Your task to perform on an android device: Set an alarm for 1pm Image 0: 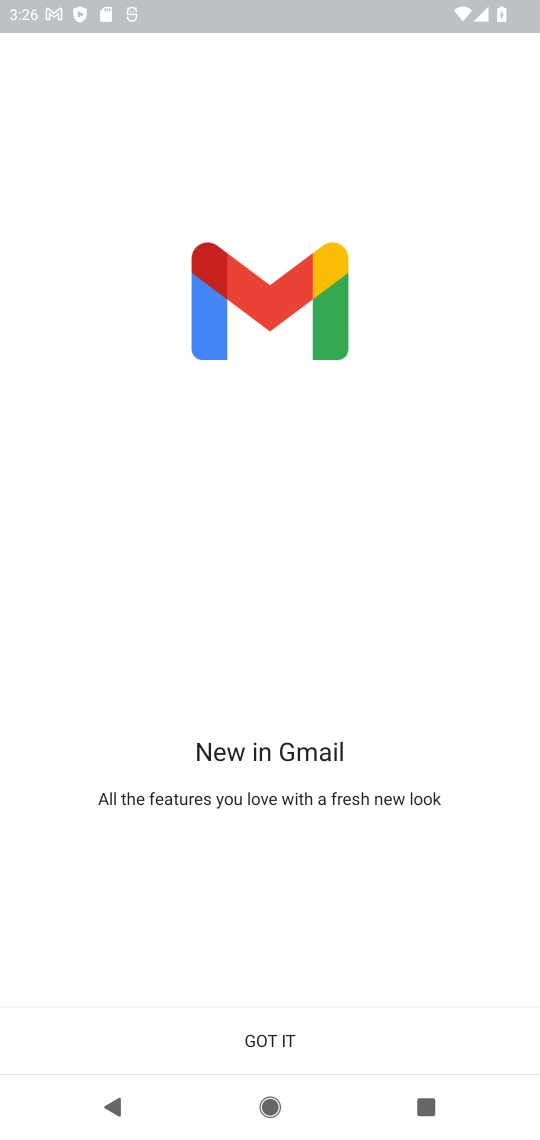
Step 0: press home button
Your task to perform on an android device: Set an alarm for 1pm Image 1: 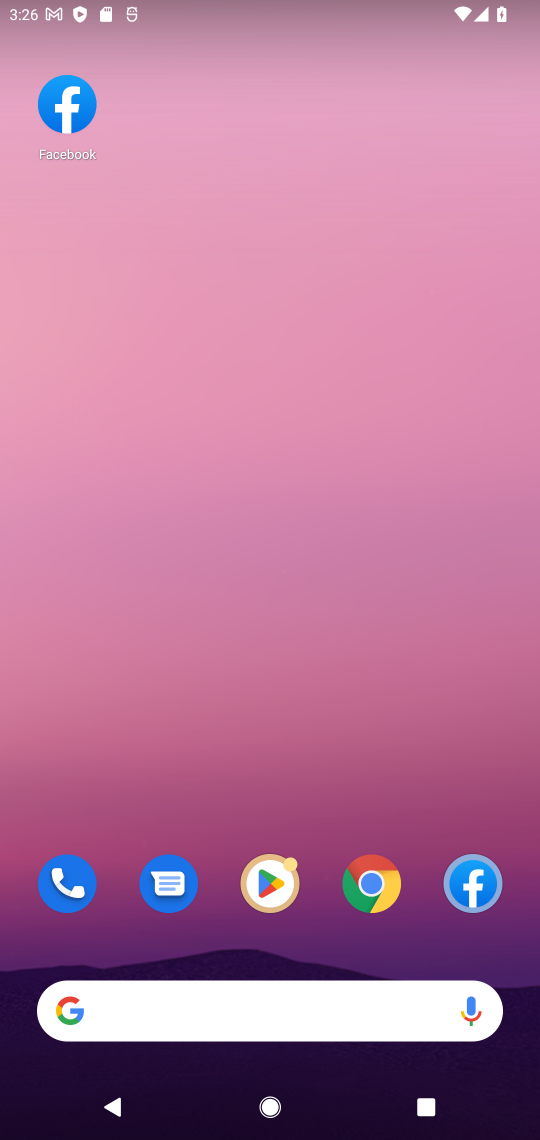
Step 1: drag from (150, 1002) to (93, 193)
Your task to perform on an android device: Set an alarm for 1pm Image 2: 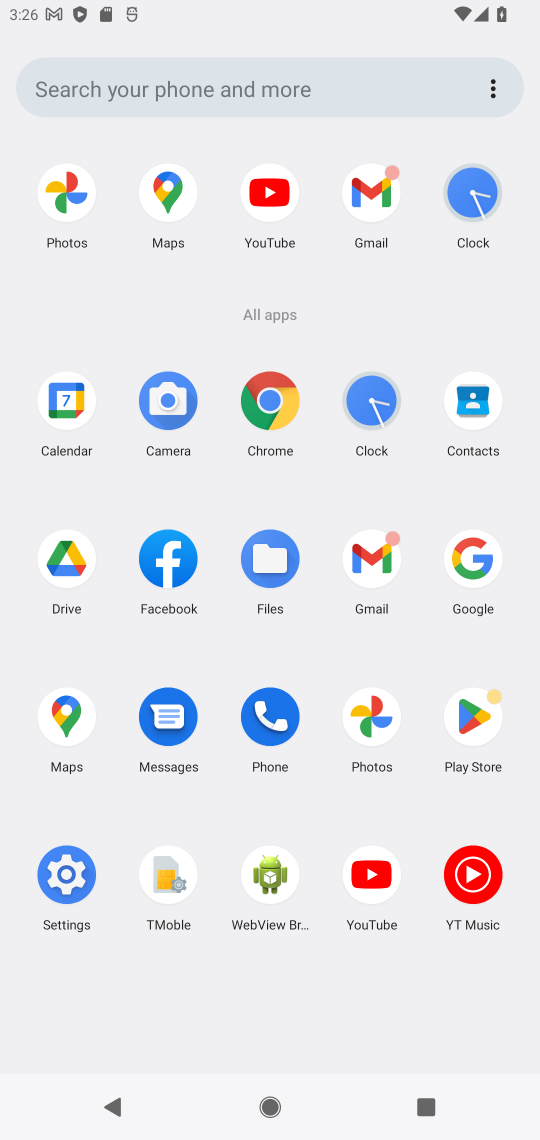
Step 2: click (373, 433)
Your task to perform on an android device: Set an alarm for 1pm Image 3: 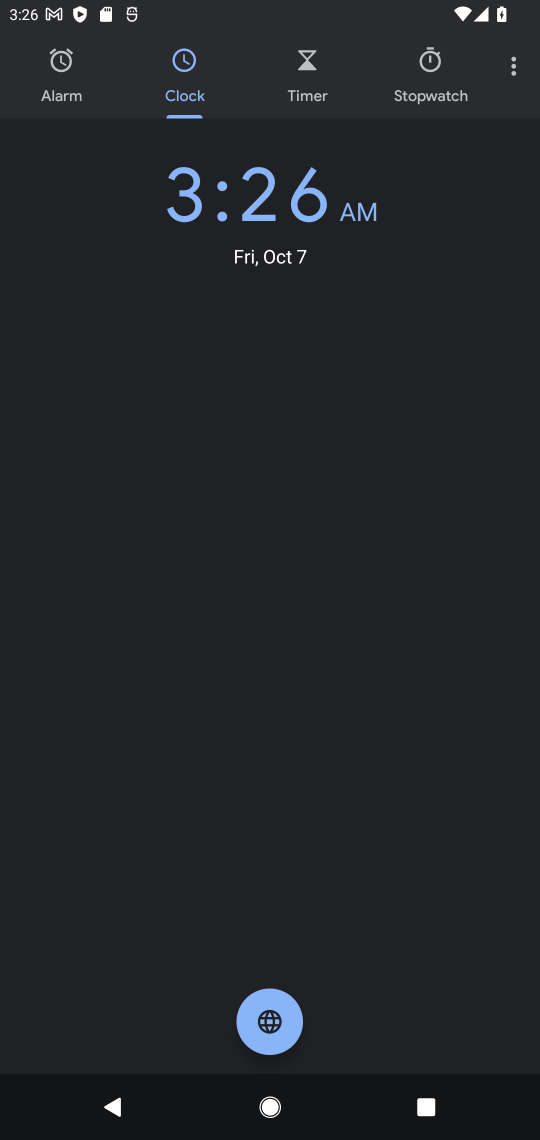
Step 3: click (39, 80)
Your task to perform on an android device: Set an alarm for 1pm Image 4: 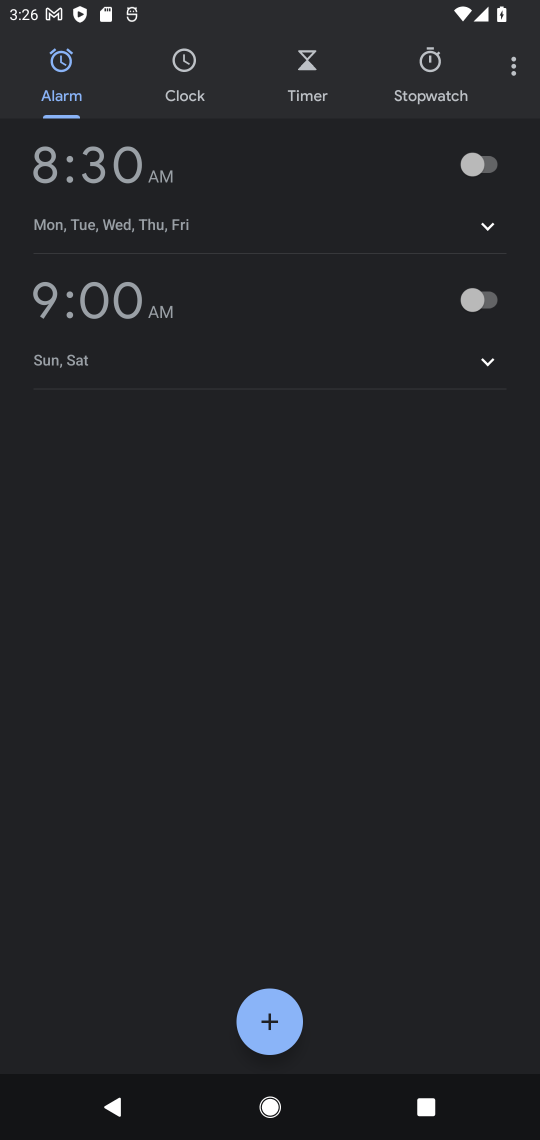
Step 4: click (253, 1013)
Your task to perform on an android device: Set an alarm for 1pm Image 5: 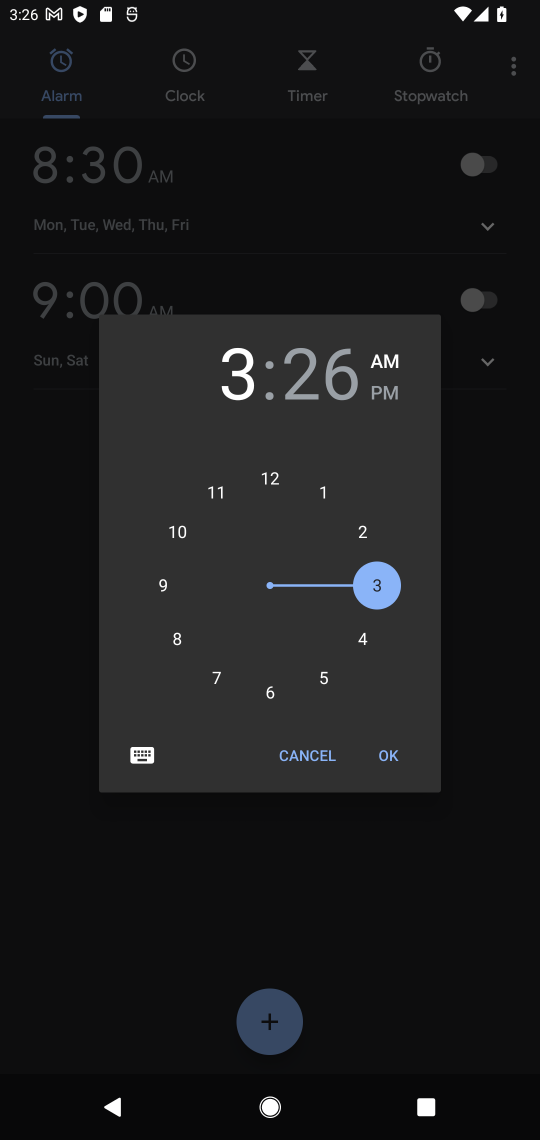
Step 5: click (317, 497)
Your task to perform on an android device: Set an alarm for 1pm Image 6: 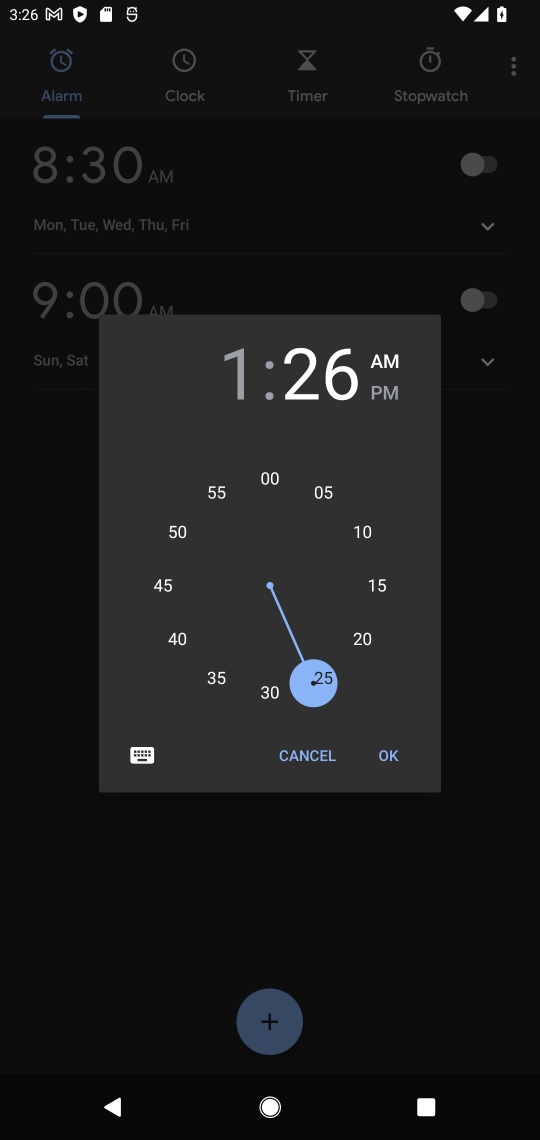
Step 6: click (286, 481)
Your task to perform on an android device: Set an alarm for 1pm Image 7: 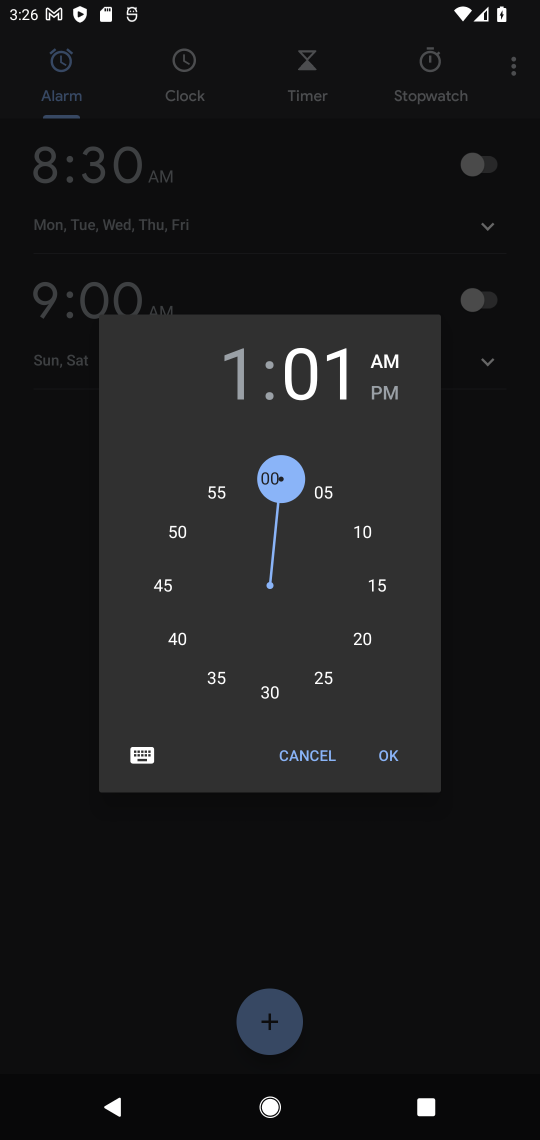
Step 7: click (271, 474)
Your task to perform on an android device: Set an alarm for 1pm Image 8: 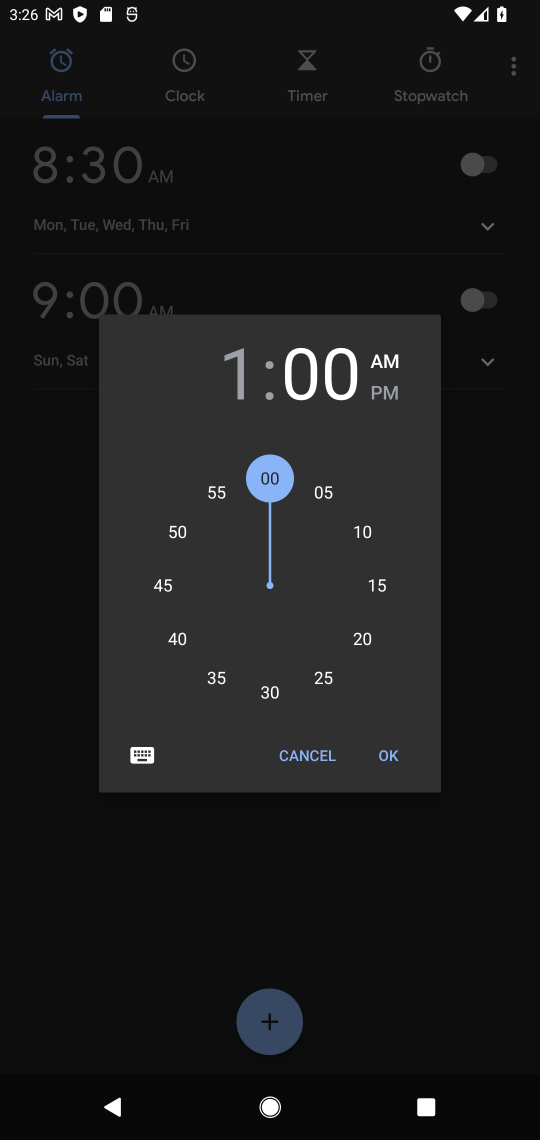
Step 8: drag from (391, 754) to (16, 915)
Your task to perform on an android device: Set an alarm for 1pm Image 9: 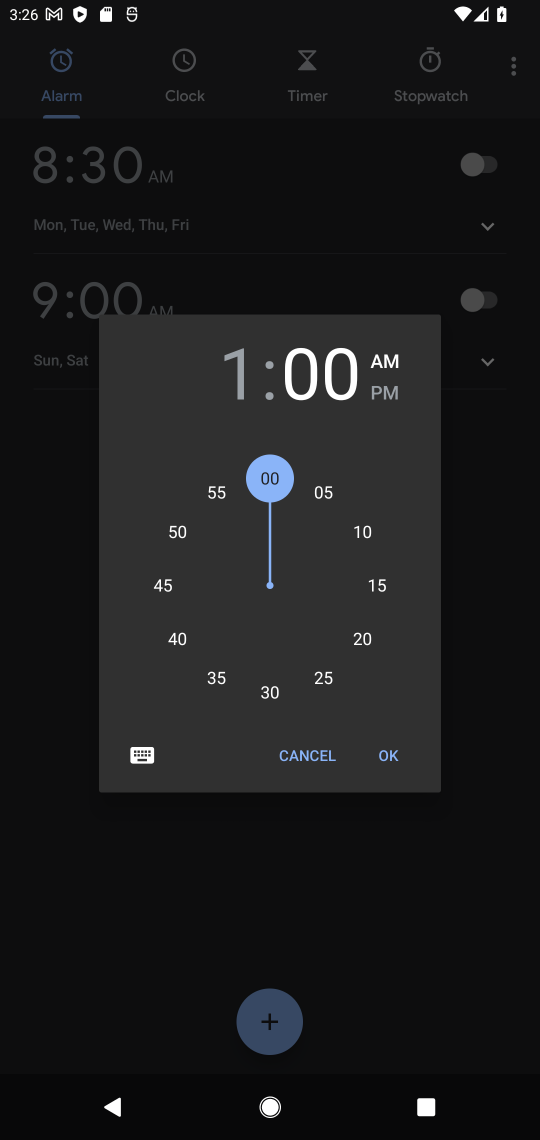
Step 9: click (402, 391)
Your task to perform on an android device: Set an alarm for 1pm Image 10: 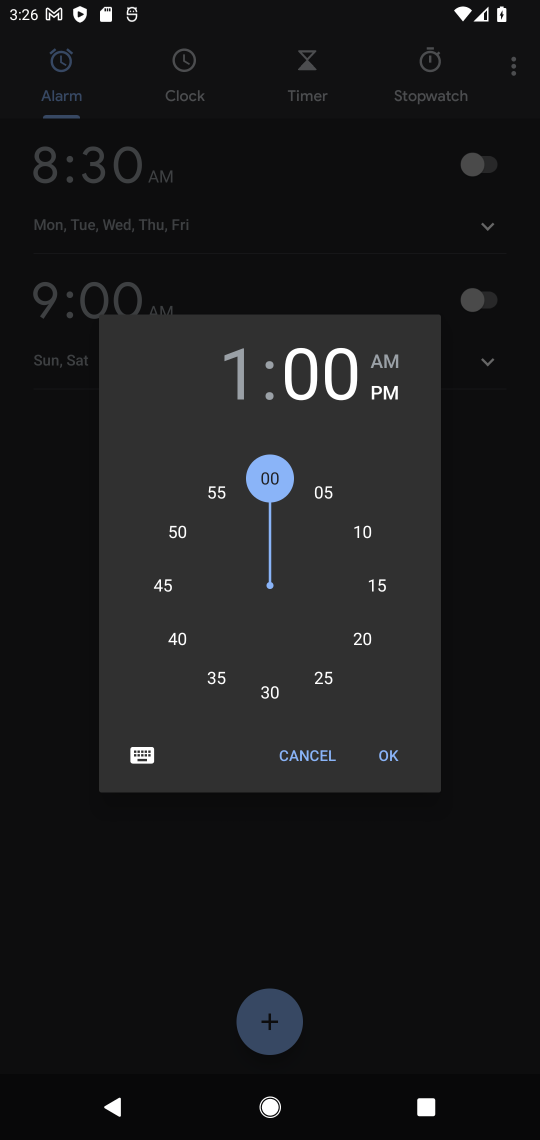
Step 10: click (405, 762)
Your task to perform on an android device: Set an alarm for 1pm Image 11: 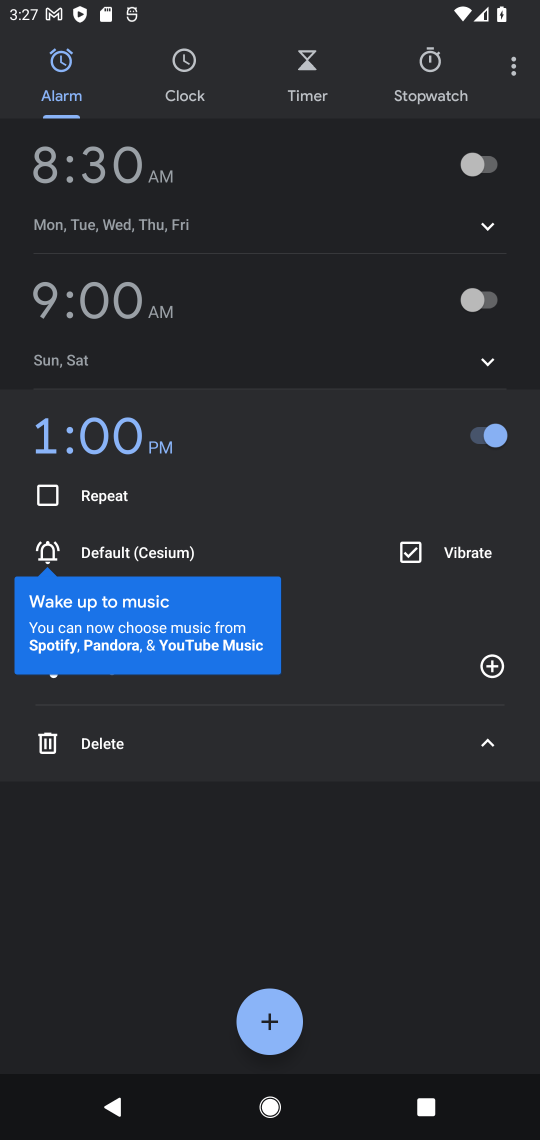
Step 11: task complete